Your task to perform on an android device: turn off location history Image 0: 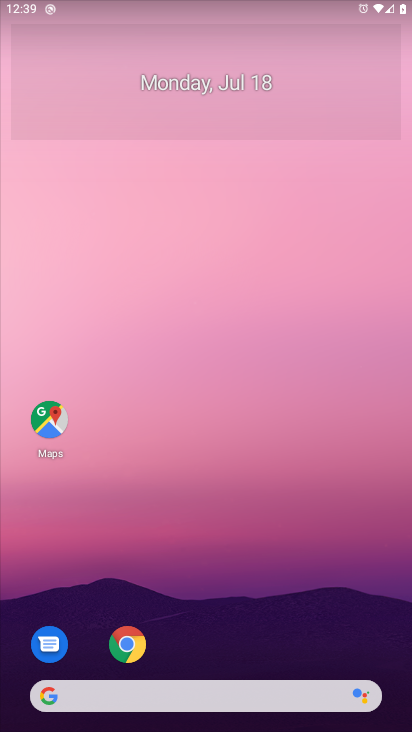
Step 0: press home button
Your task to perform on an android device: turn off location history Image 1: 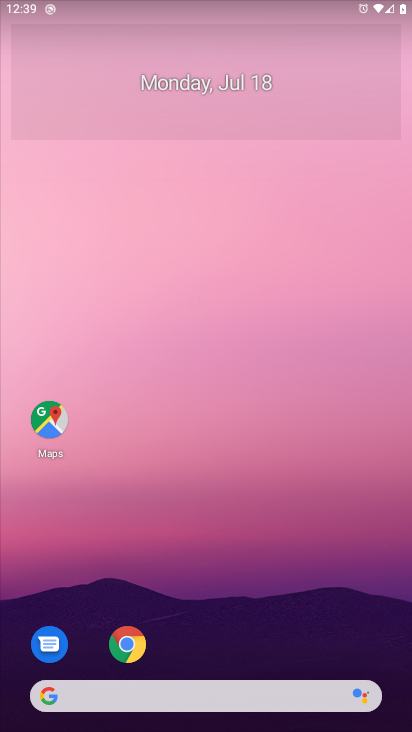
Step 1: drag from (284, 637) to (383, 149)
Your task to perform on an android device: turn off location history Image 2: 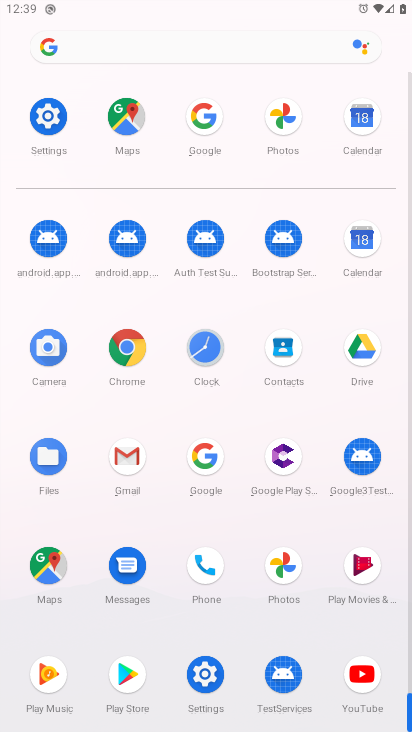
Step 2: click (46, 121)
Your task to perform on an android device: turn off location history Image 3: 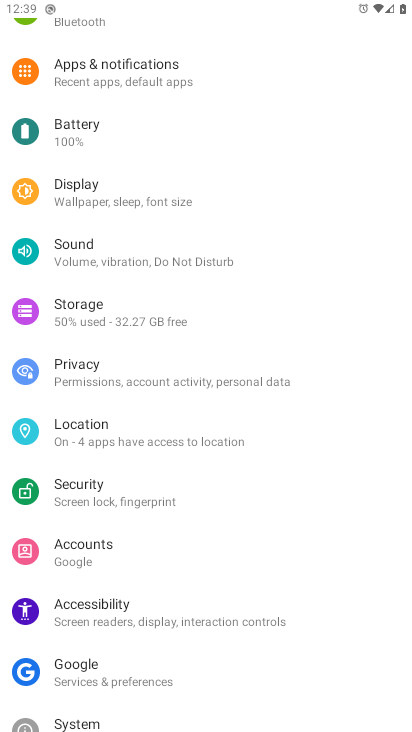
Step 3: click (121, 431)
Your task to perform on an android device: turn off location history Image 4: 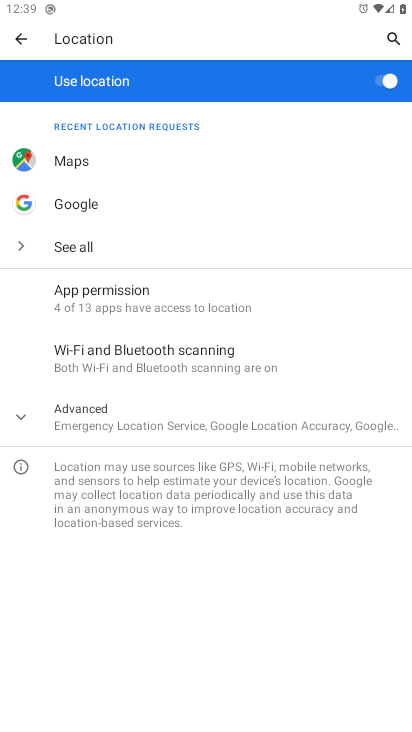
Step 4: click (25, 407)
Your task to perform on an android device: turn off location history Image 5: 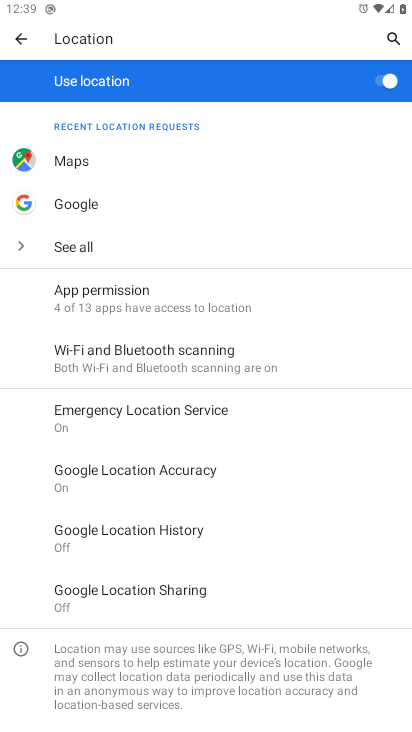
Step 5: task complete